Your task to perform on an android device: Open settings Image 0: 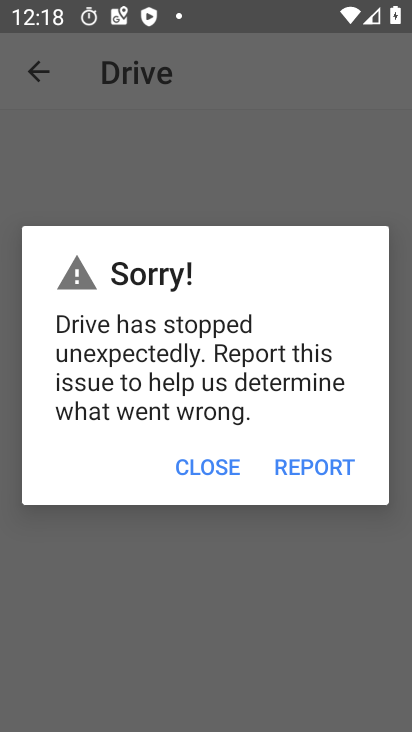
Step 0: press home button
Your task to perform on an android device: Open settings Image 1: 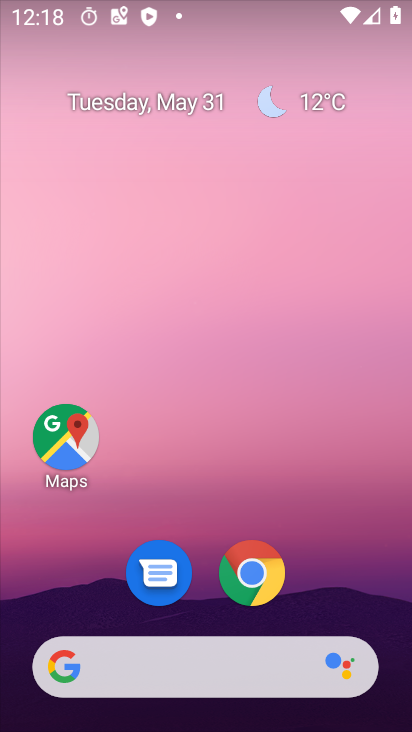
Step 1: drag from (317, 424) to (292, 115)
Your task to perform on an android device: Open settings Image 2: 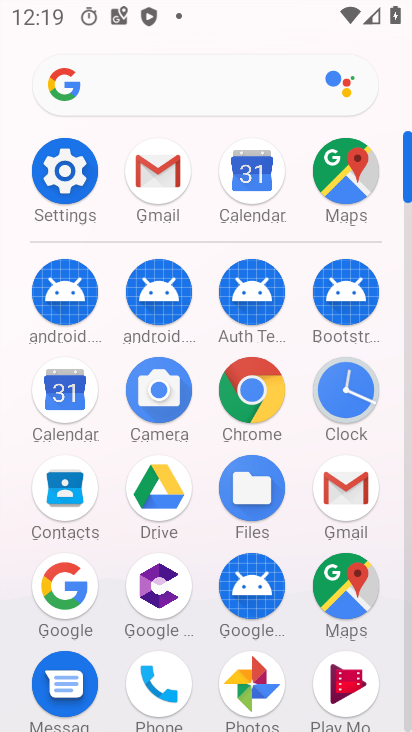
Step 2: click (76, 172)
Your task to perform on an android device: Open settings Image 3: 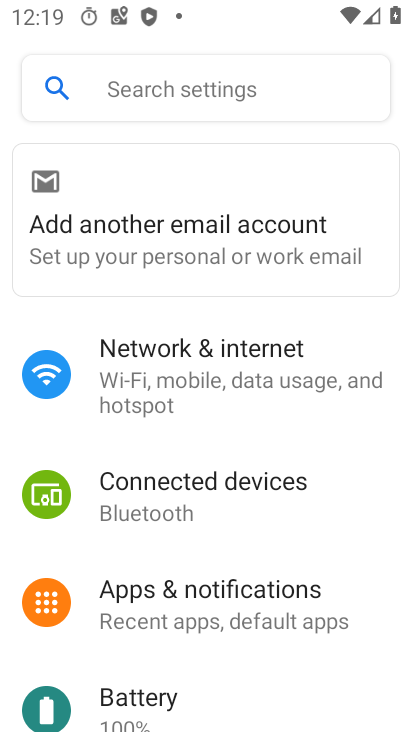
Step 3: task complete